Your task to perform on an android device: Open settings Image 0: 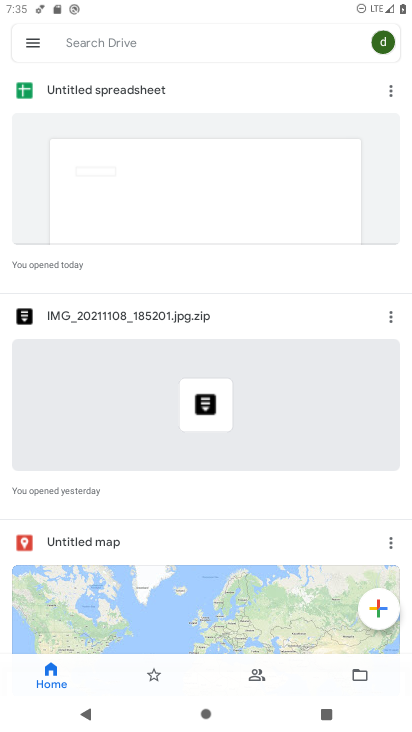
Step 0: press home button
Your task to perform on an android device: Open settings Image 1: 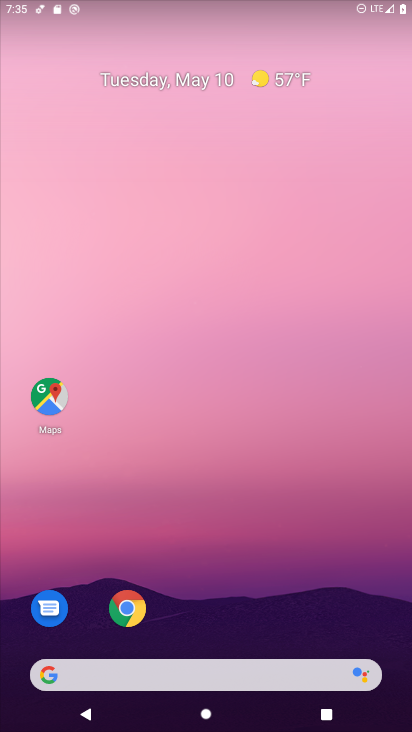
Step 1: drag from (331, 604) to (327, 32)
Your task to perform on an android device: Open settings Image 2: 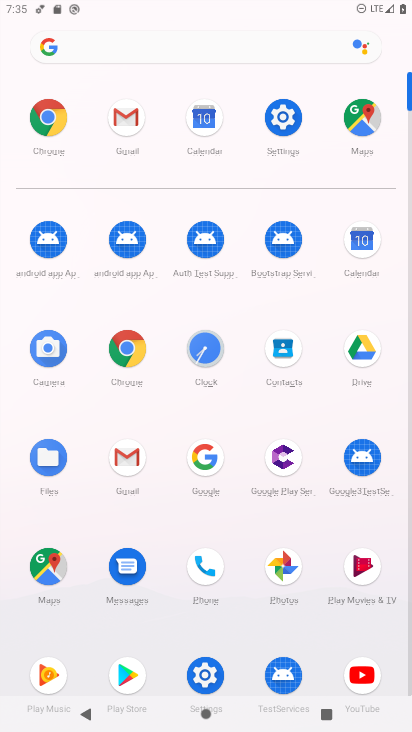
Step 2: click (202, 661)
Your task to perform on an android device: Open settings Image 3: 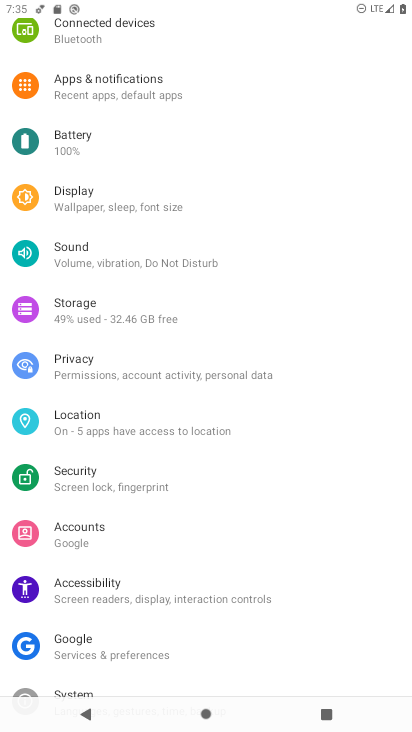
Step 3: task complete